Your task to perform on an android device: turn off picture-in-picture Image 0: 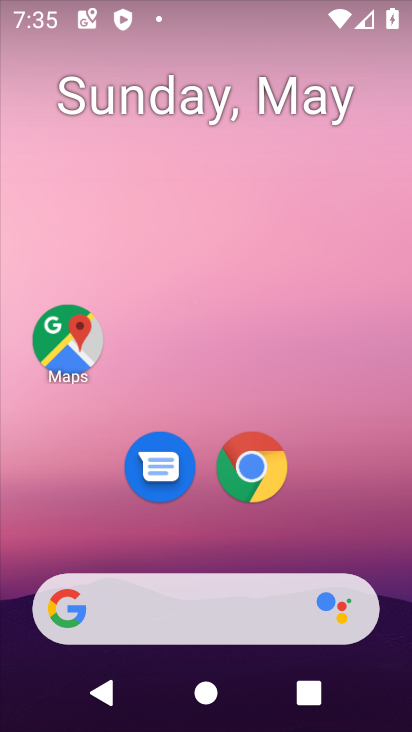
Step 0: drag from (104, 419) to (286, 103)
Your task to perform on an android device: turn off picture-in-picture Image 1: 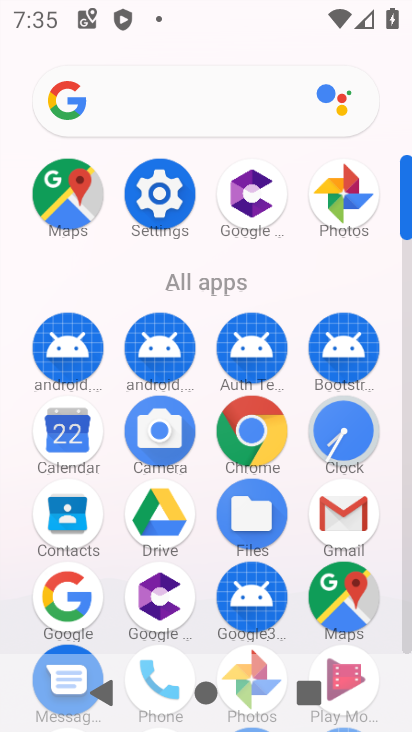
Step 1: click (175, 206)
Your task to perform on an android device: turn off picture-in-picture Image 2: 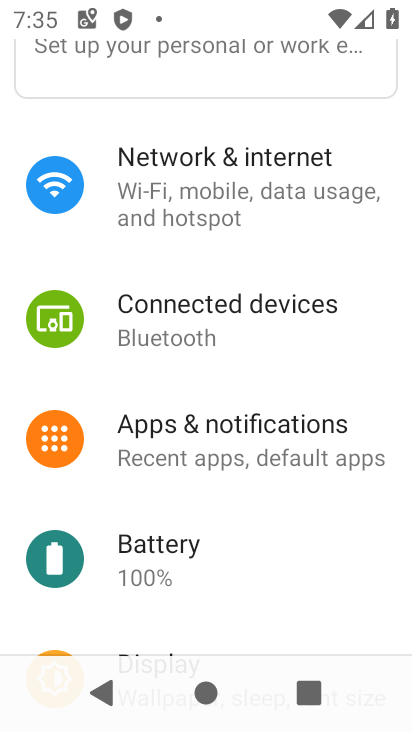
Step 2: click (233, 408)
Your task to perform on an android device: turn off picture-in-picture Image 3: 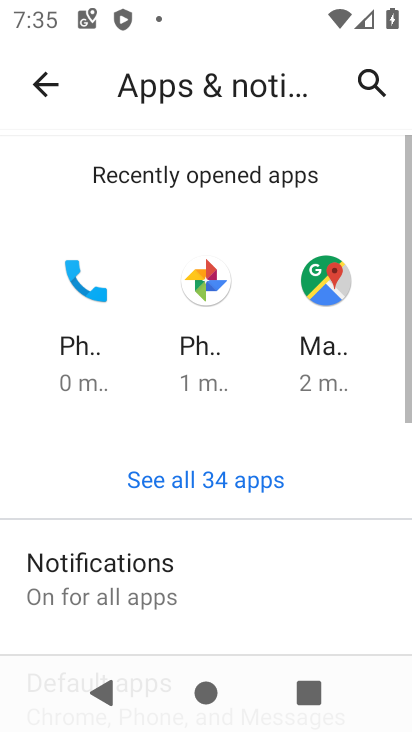
Step 3: drag from (10, 467) to (102, 212)
Your task to perform on an android device: turn off picture-in-picture Image 4: 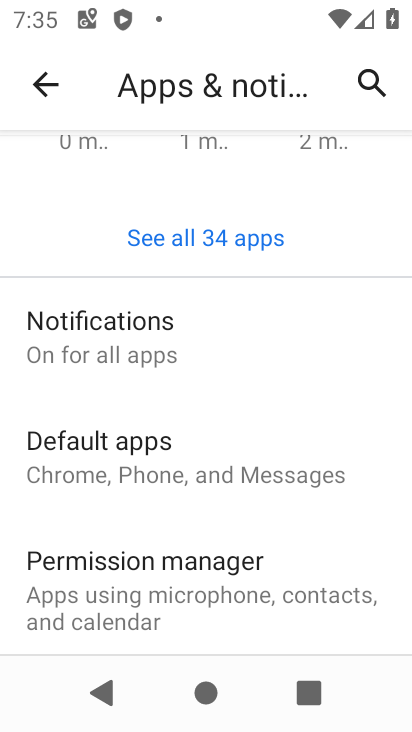
Step 4: click (122, 315)
Your task to perform on an android device: turn off picture-in-picture Image 5: 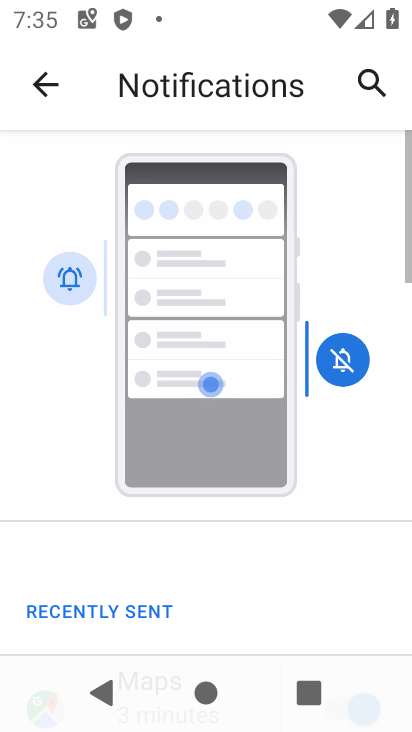
Step 5: drag from (11, 512) to (216, 130)
Your task to perform on an android device: turn off picture-in-picture Image 6: 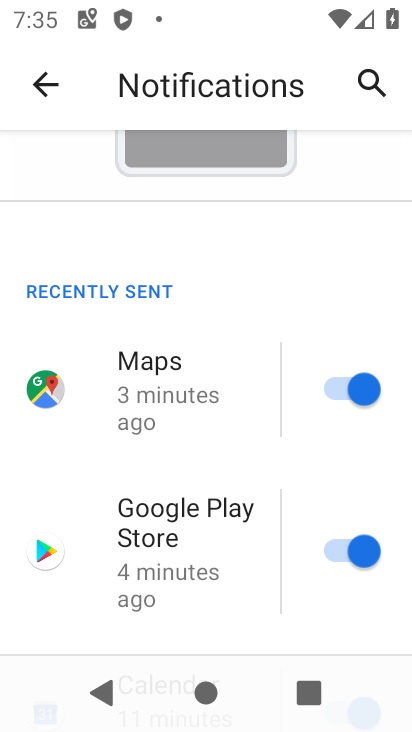
Step 6: drag from (27, 477) to (207, 99)
Your task to perform on an android device: turn off picture-in-picture Image 7: 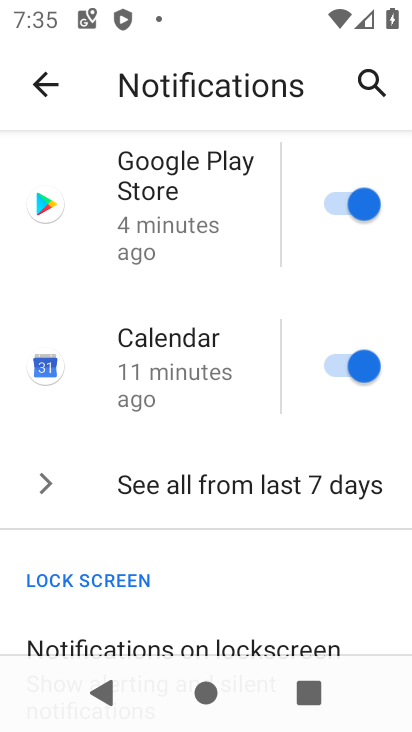
Step 7: press back button
Your task to perform on an android device: turn off picture-in-picture Image 8: 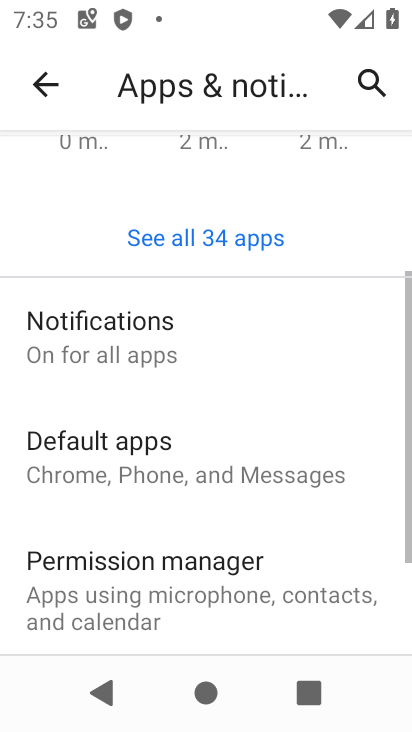
Step 8: drag from (107, 609) to (255, 223)
Your task to perform on an android device: turn off picture-in-picture Image 9: 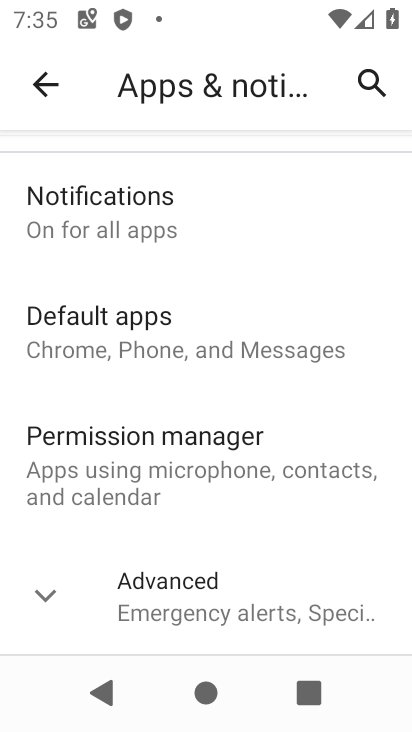
Step 9: click (169, 594)
Your task to perform on an android device: turn off picture-in-picture Image 10: 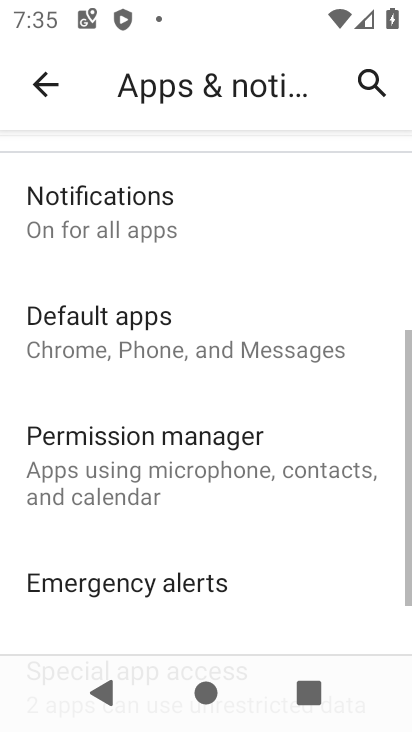
Step 10: drag from (8, 599) to (246, 118)
Your task to perform on an android device: turn off picture-in-picture Image 11: 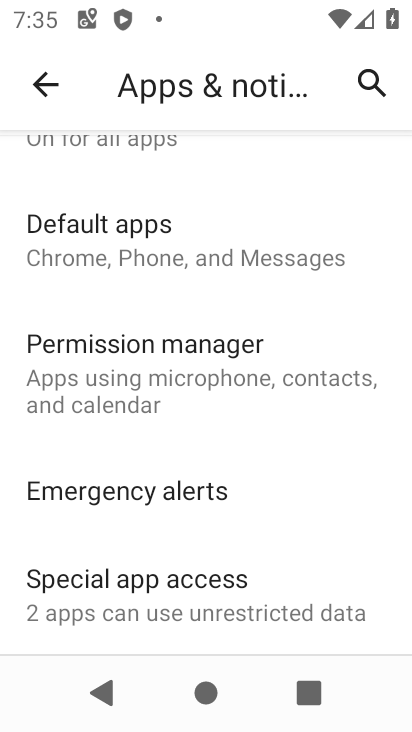
Step 11: click (83, 585)
Your task to perform on an android device: turn off picture-in-picture Image 12: 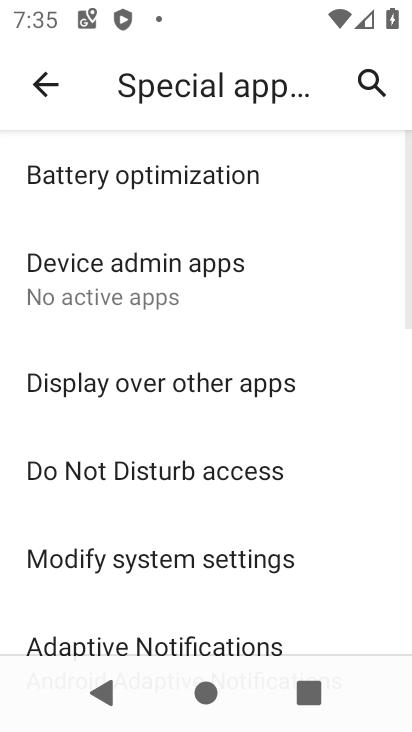
Step 12: drag from (23, 462) to (170, 193)
Your task to perform on an android device: turn off picture-in-picture Image 13: 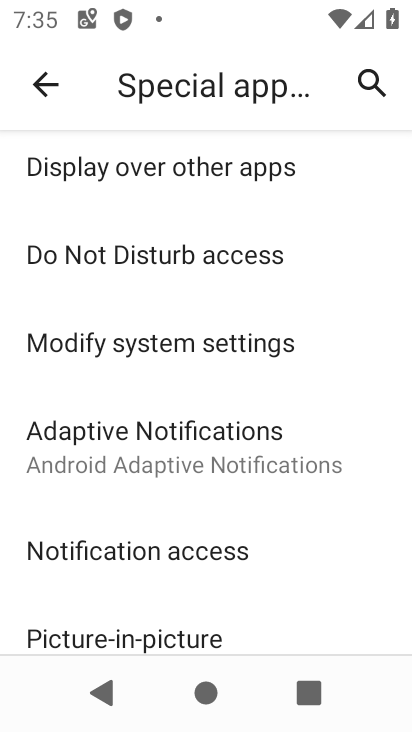
Step 13: click (54, 623)
Your task to perform on an android device: turn off picture-in-picture Image 14: 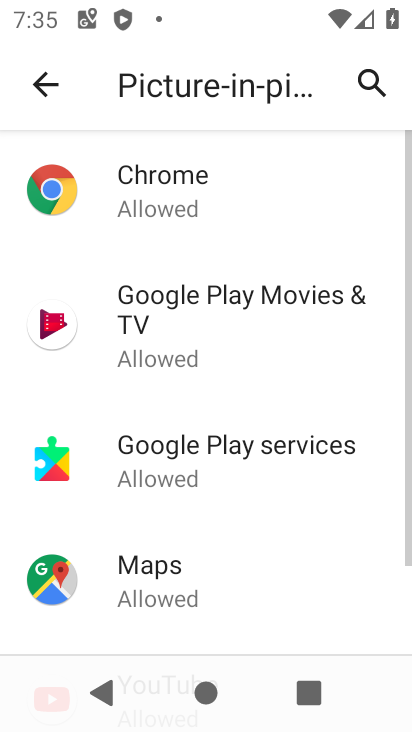
Step 14: click (270, 174)
Your task to perform on an android device: turn off picture-in-picture Image 15: 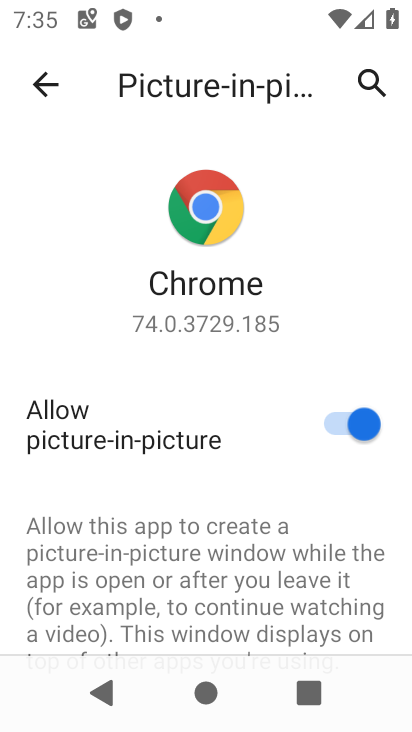
Step 15: click (366, 425)
Your task to perform on an android device: turn off picture-in-picture Image 16: 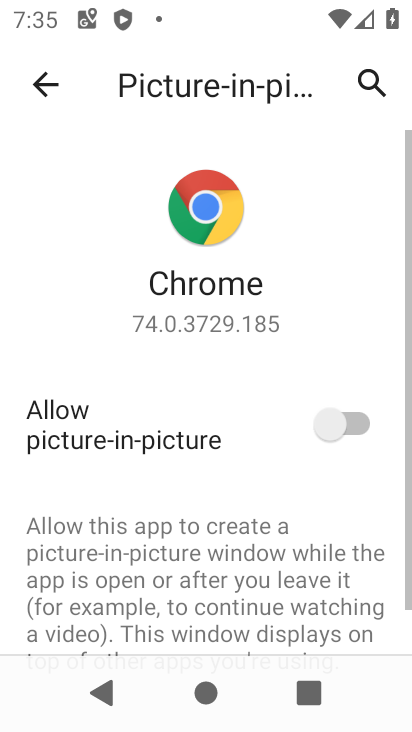
Step 16: task complete